Your task to perform on an android device: turn off javascript in the chrome app Image 0: 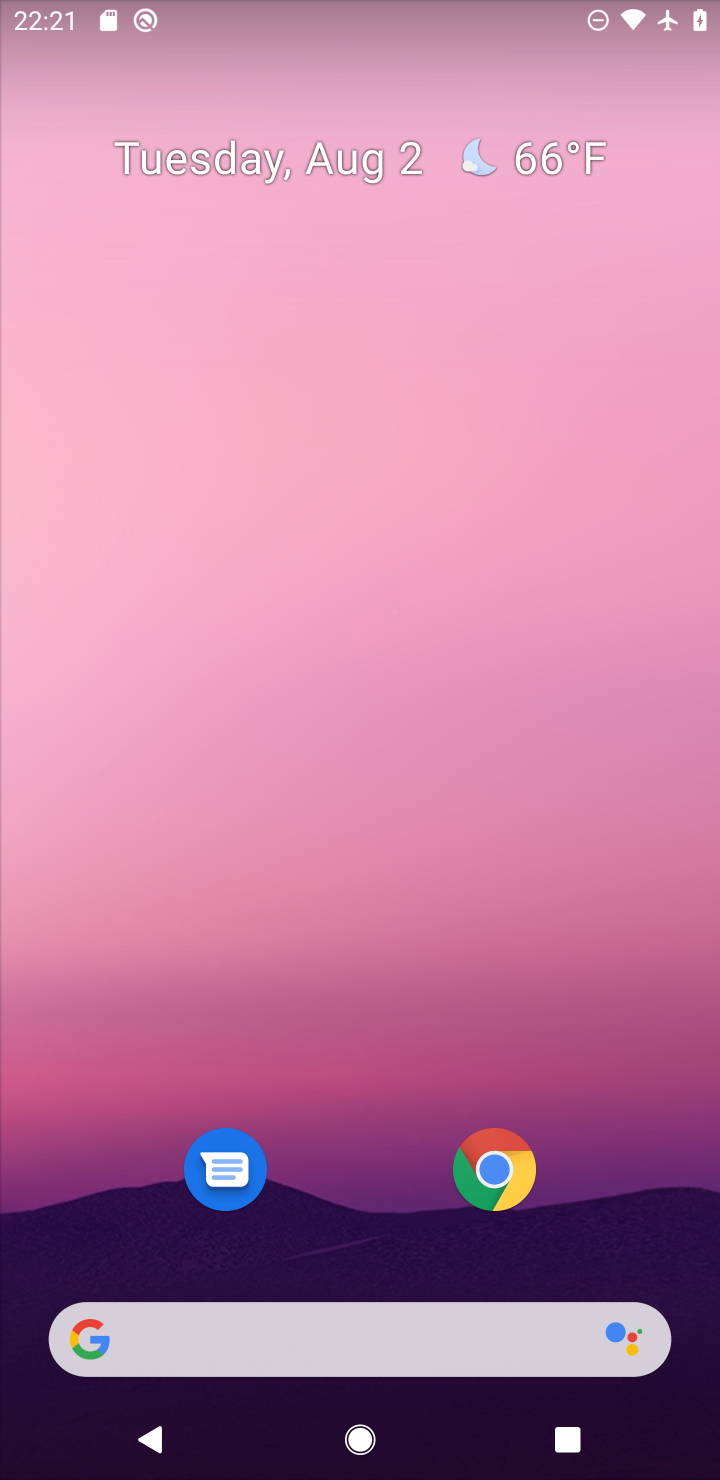
Step 0: click (499, 1161)
Your task to perform on an android device: turn off javascript in the chrome app Image 1: 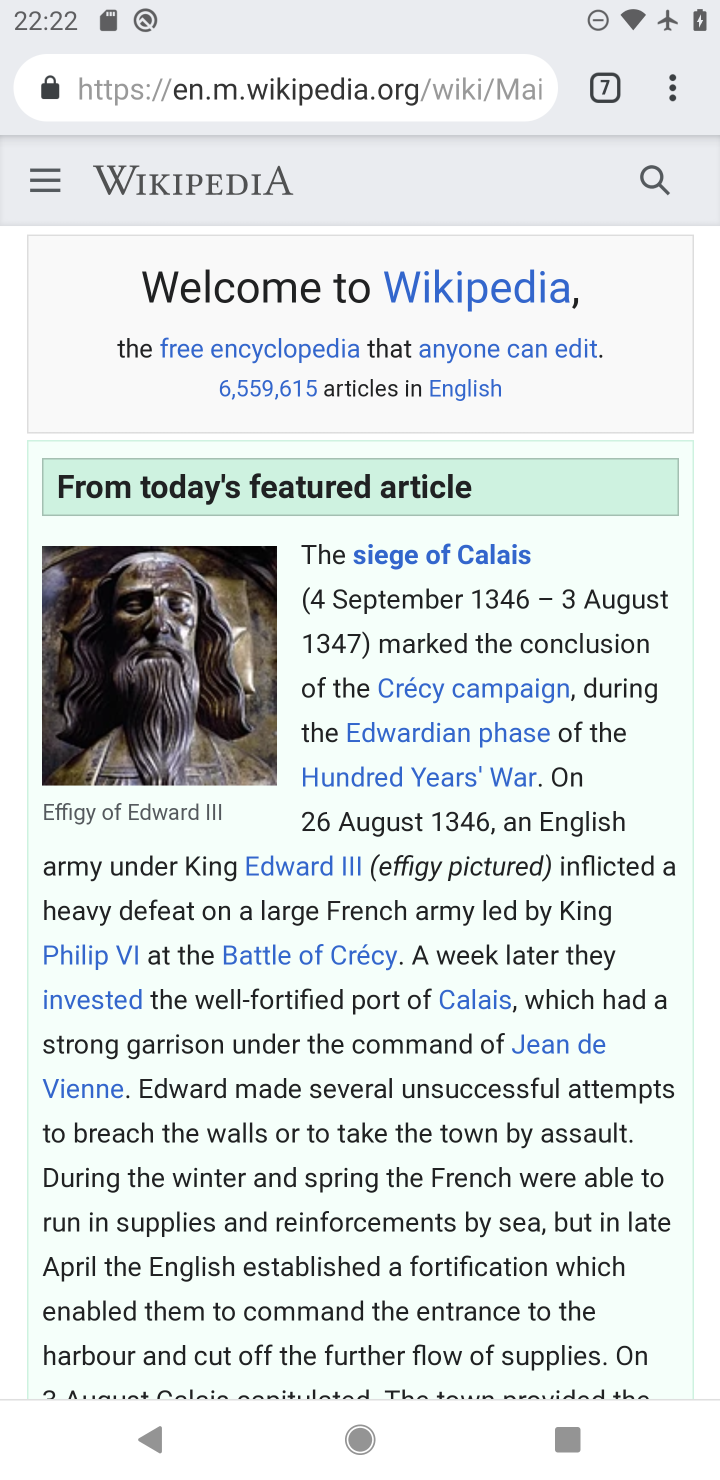
Step 1: click (673, 91)
Your task to perform on an android device: turn off javascript in the chrome app Image 2: 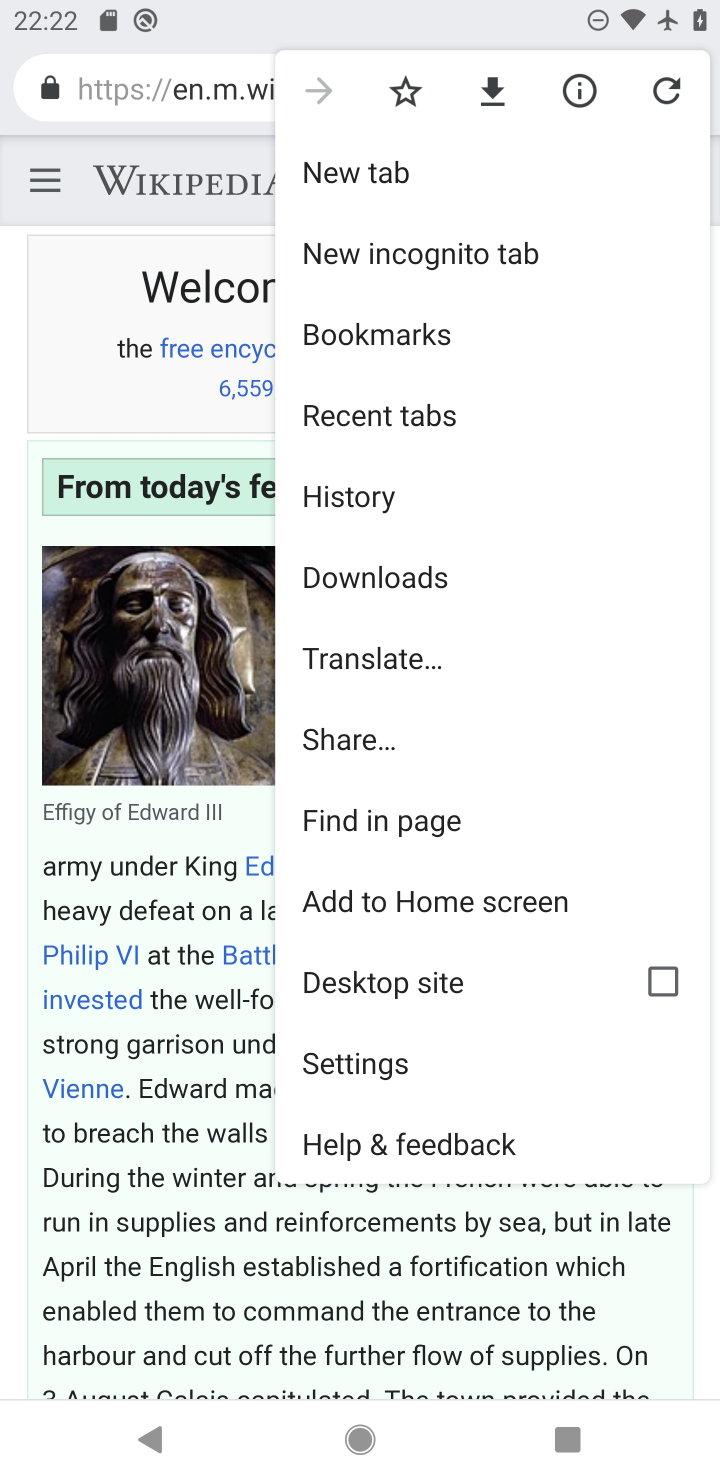
Step 2: click (354, 1055)
Your task to perform on an android device: turn off javascript in the chrome app Image 3: 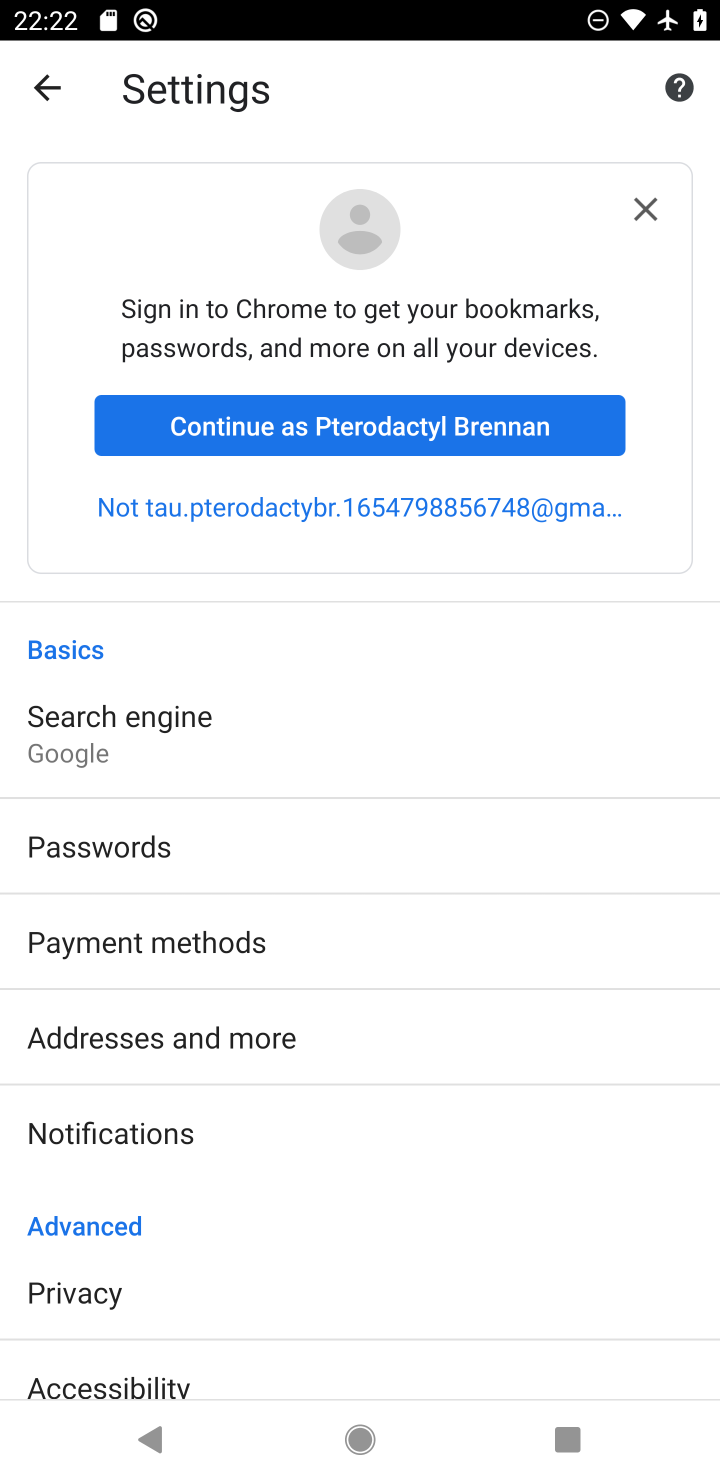
Step 3: drag from (276, 1368) to (252, 586)
Your task to perform on an android device: turn off javascript in the chrome app Image 4: 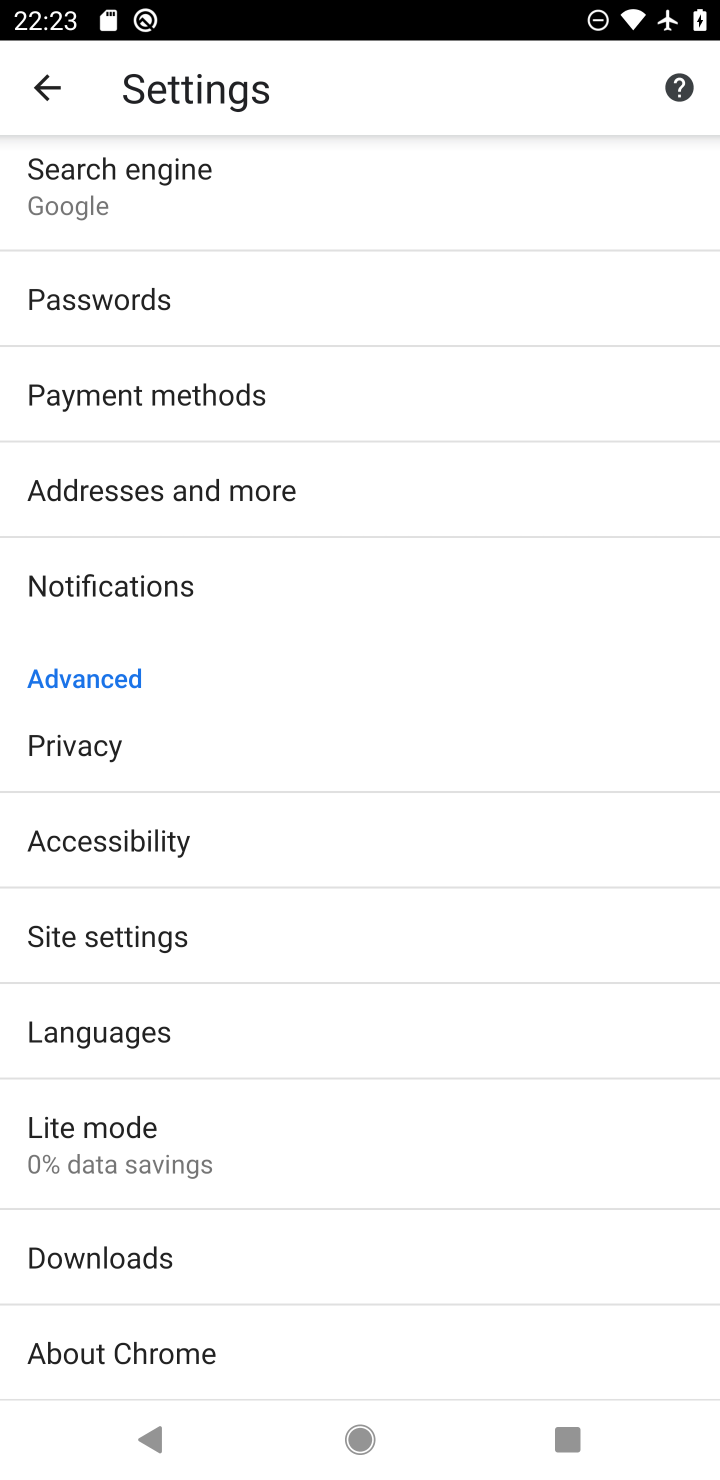
Step 4: click (44, 931)
Your task to perform on an android device: turn off javascript in the chrome app Image 5: 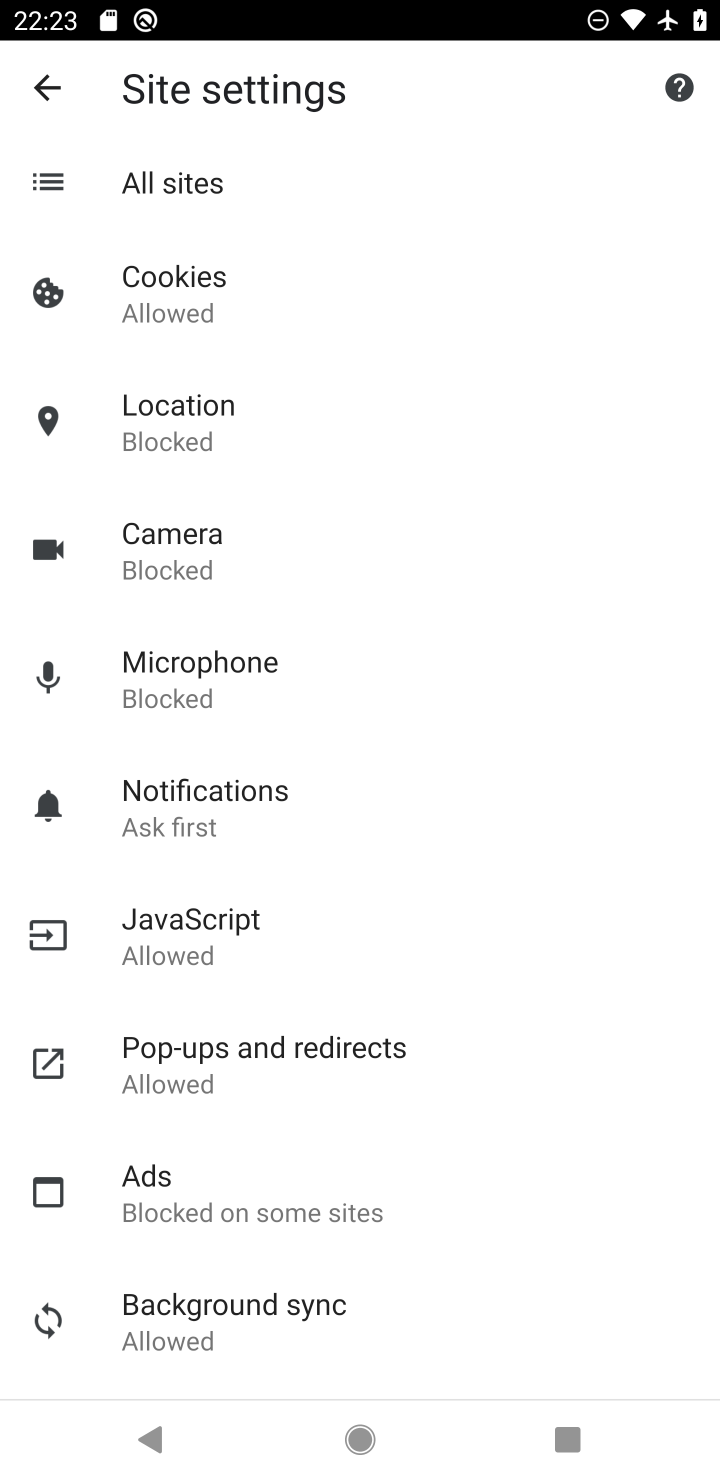
Step 5: click (169, 935)
Your task to perform on an android device: turn off javascript in the chrome app Image 6: 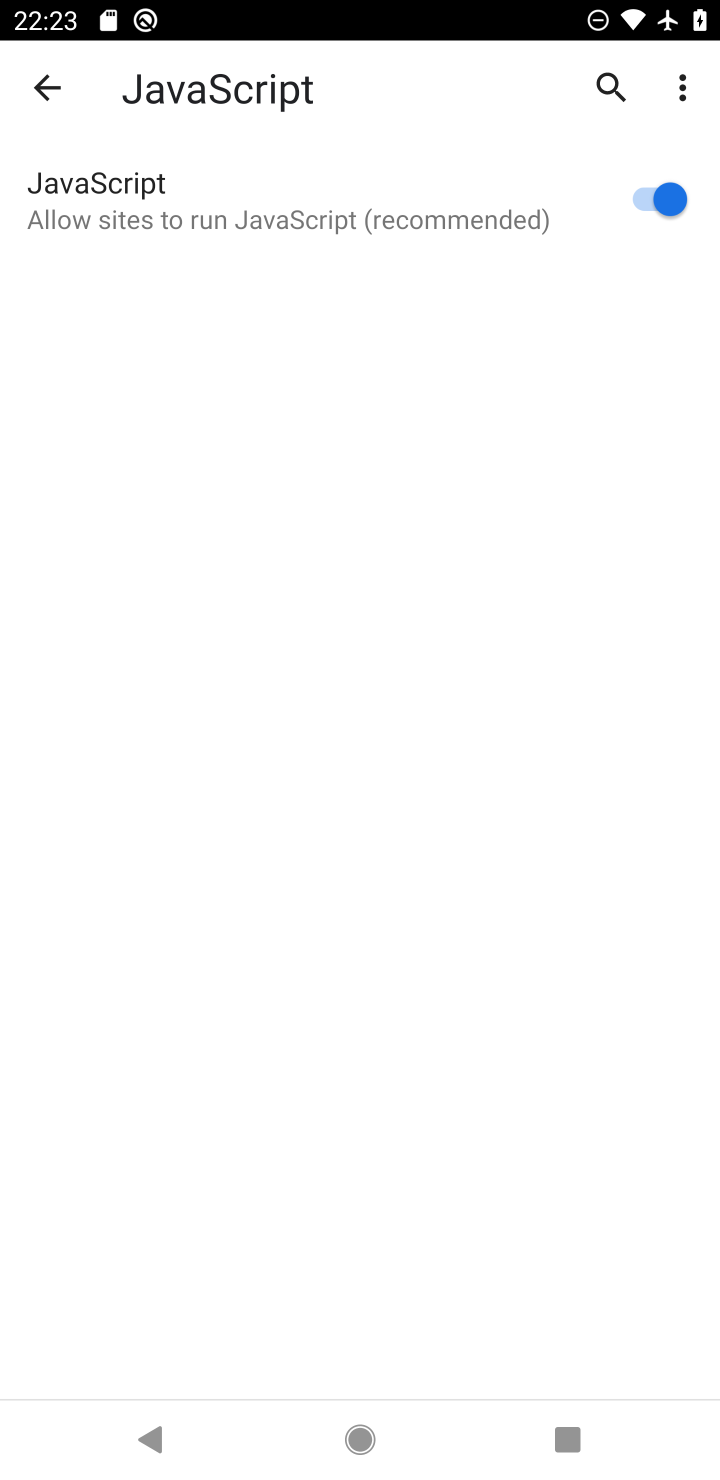
Step 6: click (641, 194)
Your task to perform on an android device: turn off javascript in the chrome app Image 7: 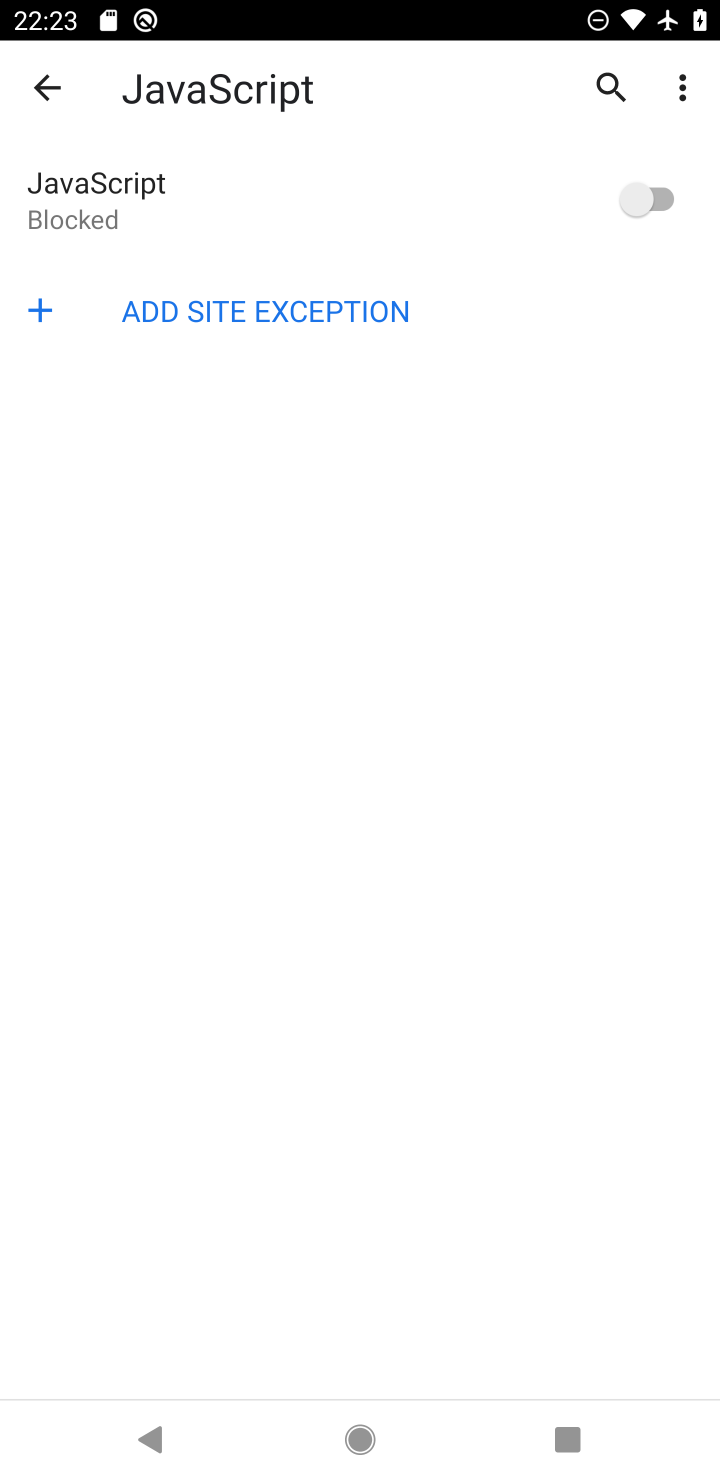
Step 7: task complete